Your task to perform on an android device: Do I have any events this weekend? Image 0: 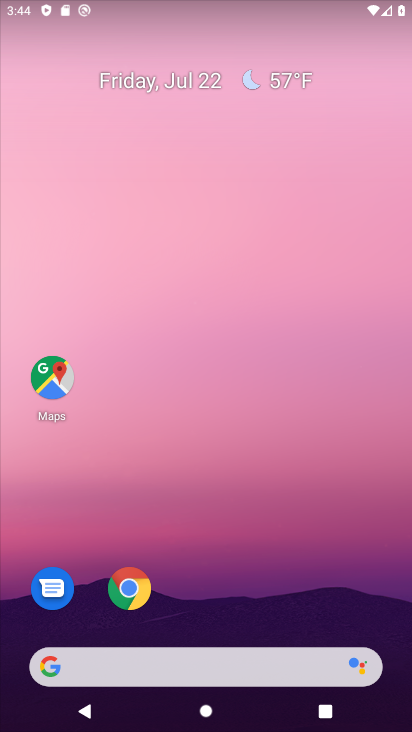
Step 0: drag from (236, 624) to (211, 16)
Your task to perform on an android device: Do I have any events this weekend? Image 1: 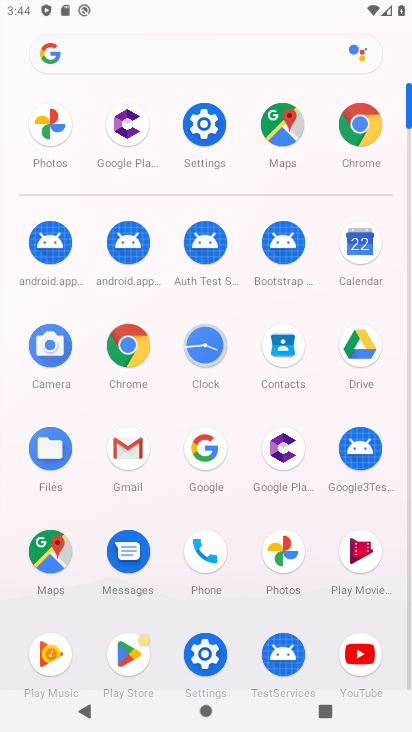
Step 1: click (358, 257)
Your task to perform on an android device: Do I have any events this weekend? Image 2: 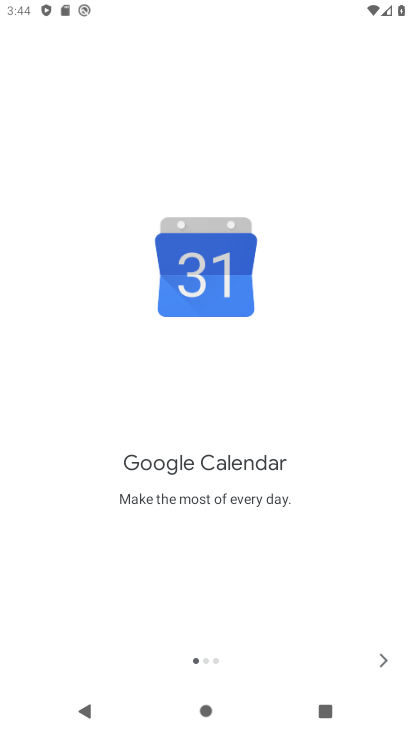
Step 2: click (389, 657)
Your task to perform on an android device: Do I have any events this weekend? Image 3: 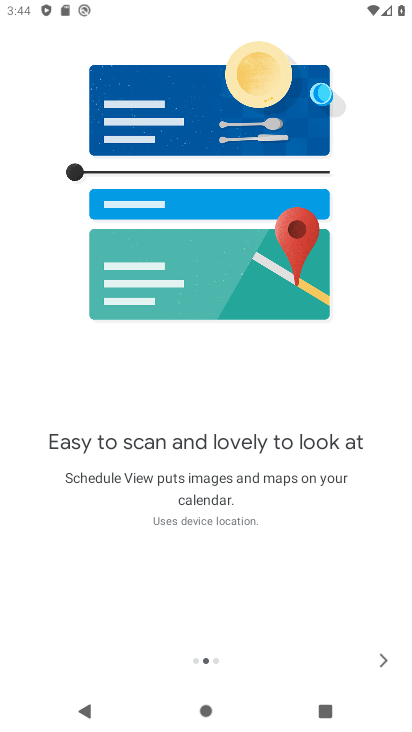
Step 3: click (388, 657)
Your task to perform on an android device: Do I have any events this weekend? Image 4: 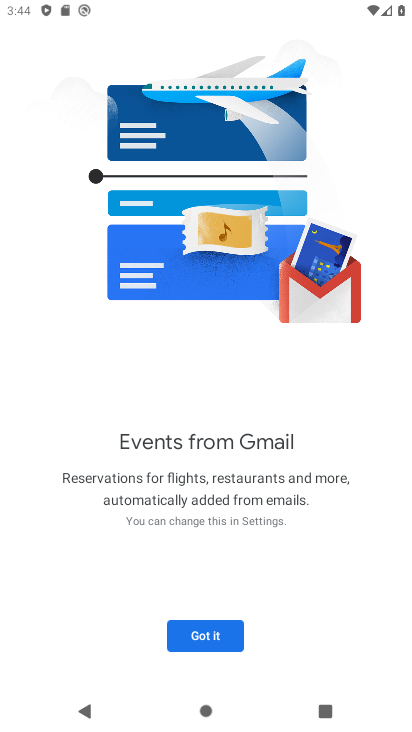
Step 4: click (229, 647)
Your task to perform on an android device: Do I have any events this weekend? Image 5: 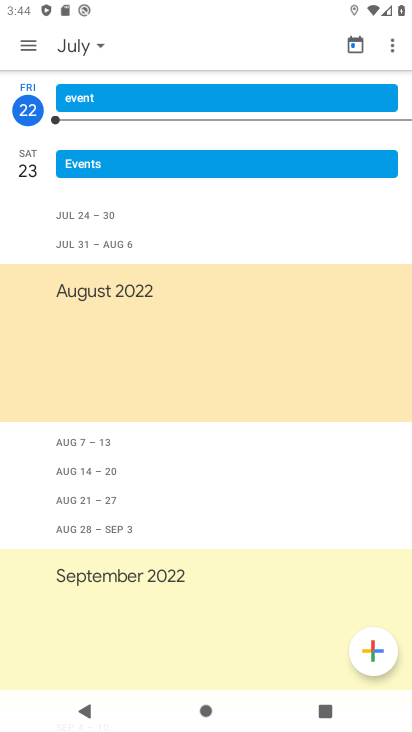
Step 5: click (34, 43)
Your task to perform on an android device: Do I have any events this weekend? Image 6: 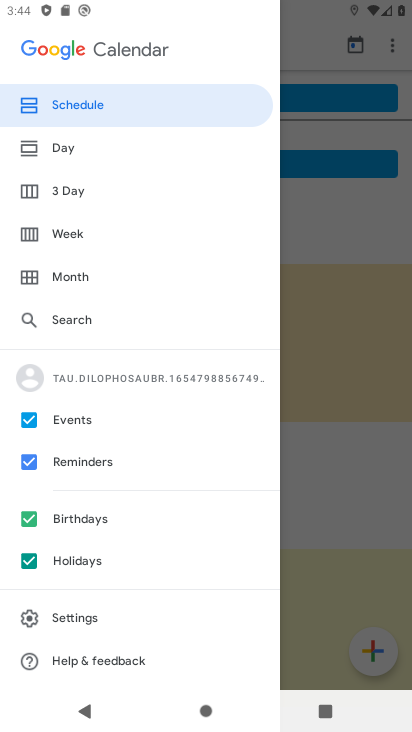
Step 6: click (69, 249)
Your task to perform on an android device: Do I have any events this weekend? Image 7: 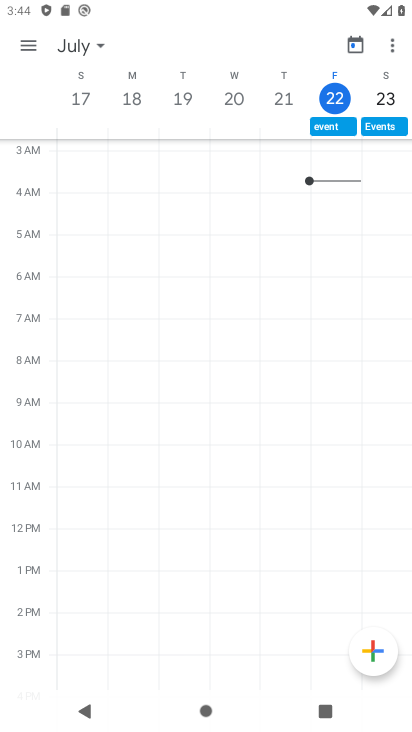
Step 7: task complete